Your task to perform on an android device: Open maps Image 0: 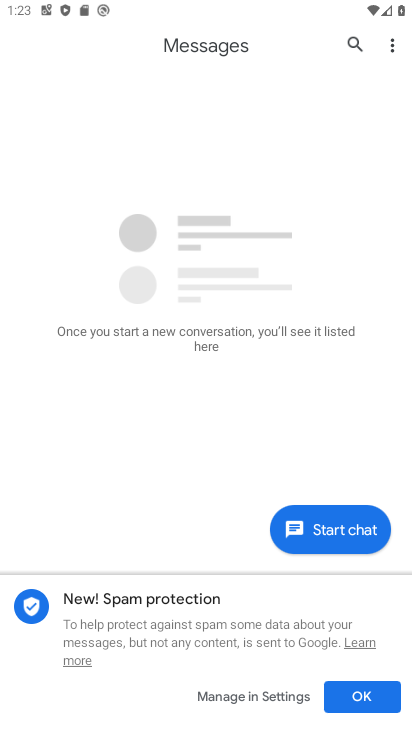
Step 0: press home button
Your task to perform on an android device: Open maps Image 1: 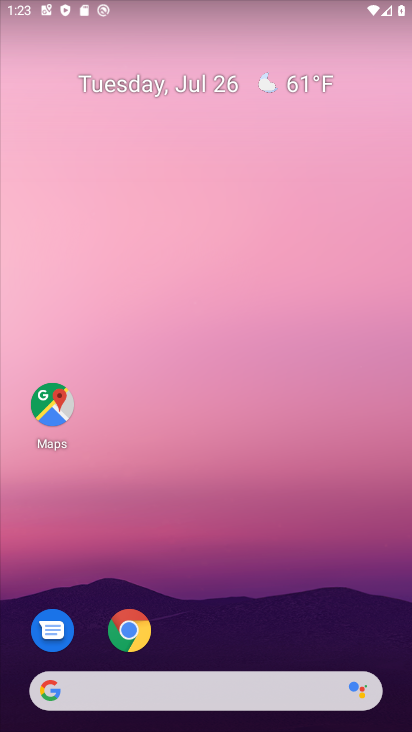
Step 1: click (43, 389)
Your task to perform on an android device: Open maps Image 2: 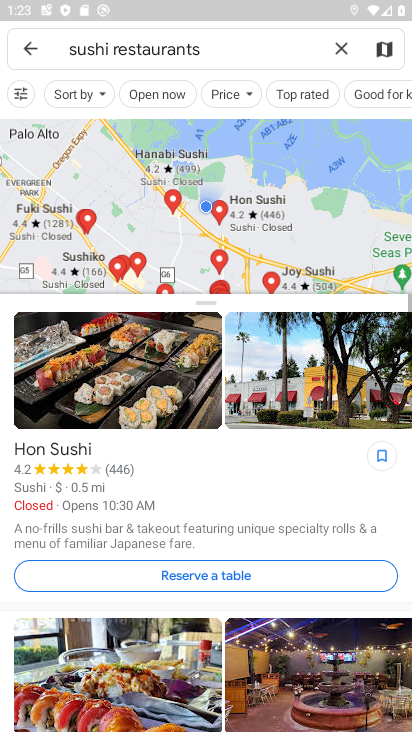
Step 2: task complete